Your task to perform on an android device: toggle sleep mode Image 0: 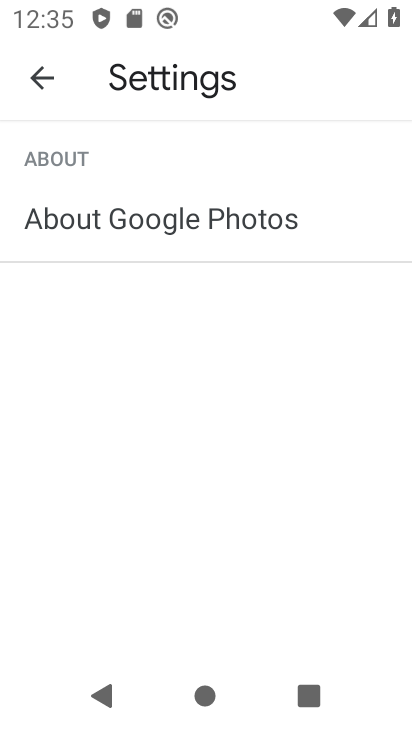
Step 0: press home button
Your task to perform on an android device: toggle sleep mode Image 1: 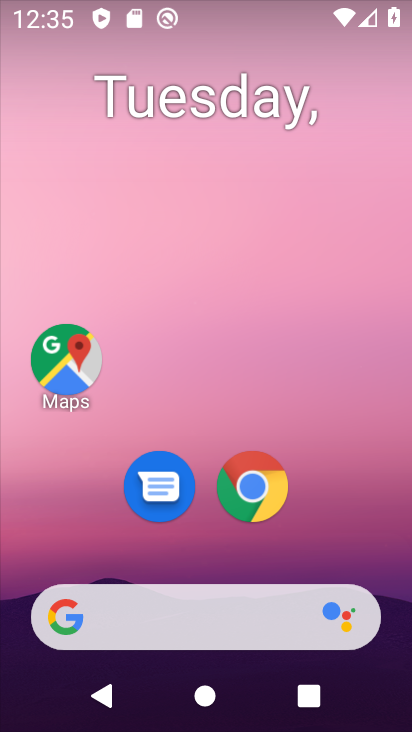
Step 1: drag from (360, 563) to (288, 60)
Your task to perform on an android device: toggle sleep mode Image 2: 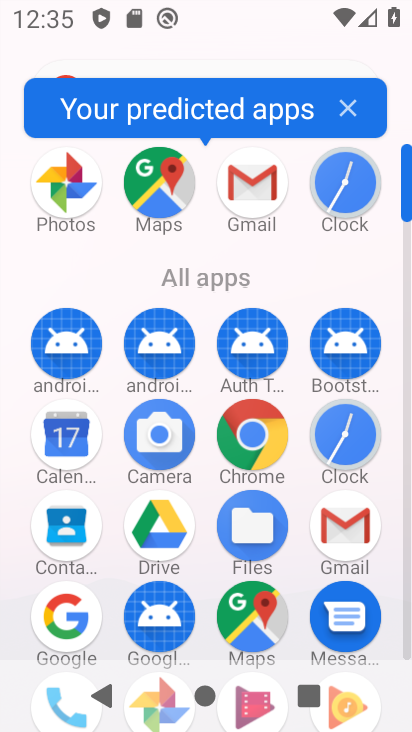
Step 2: click (407, 652)
Your task to perform on an android device: toggle sleep mode Image 3: 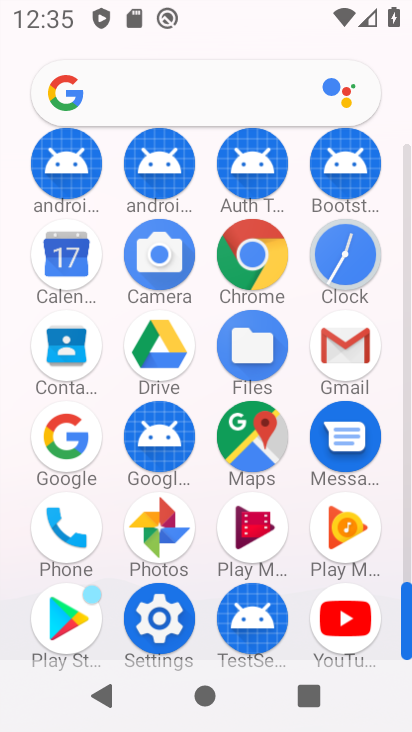
Step 3: click (160, 607)
Your task to perform on an android device: toggle sleep mode Image 4: 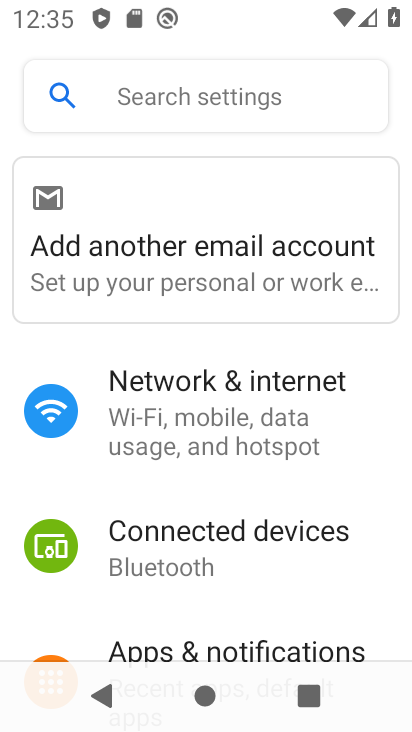
Step 4: drag from (265, 608) to (223, 82)
Your task to perform on an android device: toggle sleep mode Image 5: 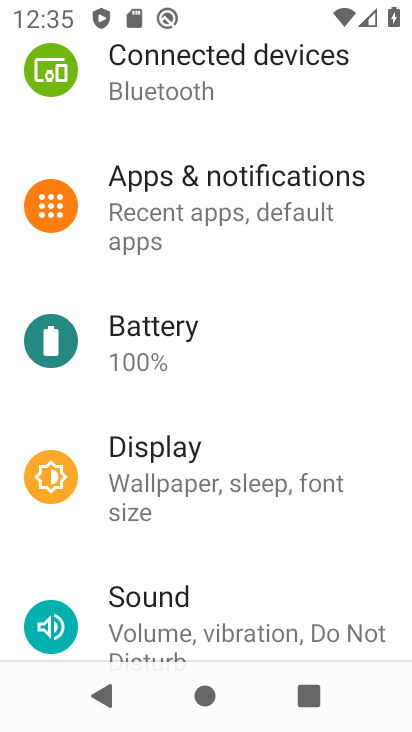
Step 5: click (319, 503)
Your task to perform on an android device: toggle sleep mode Image 6: 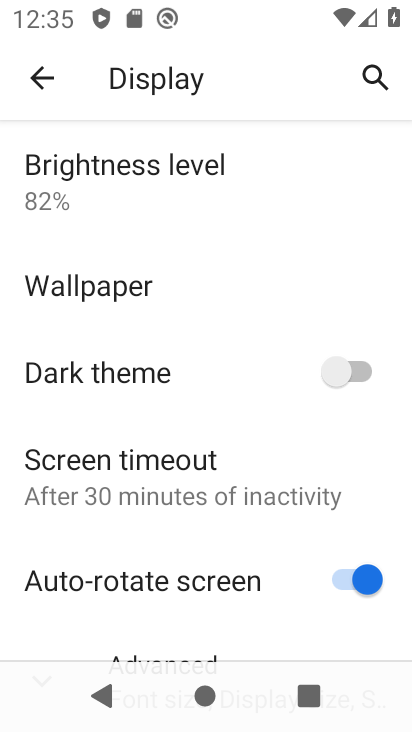
Step 6: drag from (279, 585) to (210, 90)
Your task to perform on an android device: toggle sleep mode Image 7: 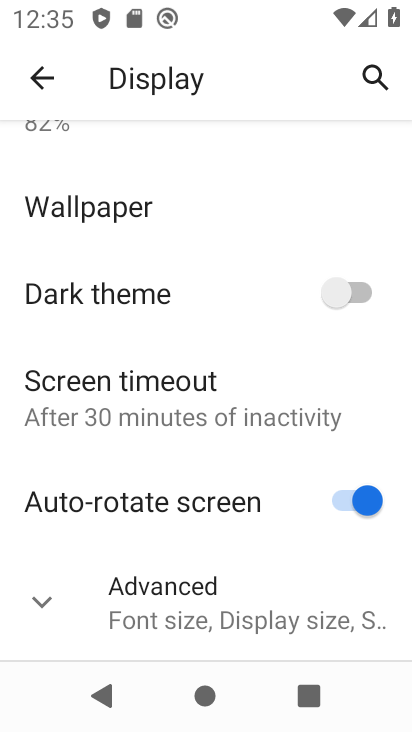
Step 7: click (309, 583)
Your task to perform on an android device: toggle sleep mode Image 8: 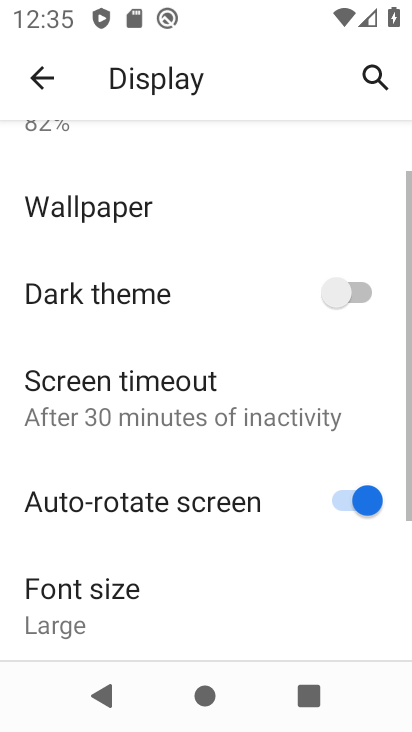
Step 8: task complete